Your task to perform on an android device: toggle priority inbox in the gmail app Image 0: 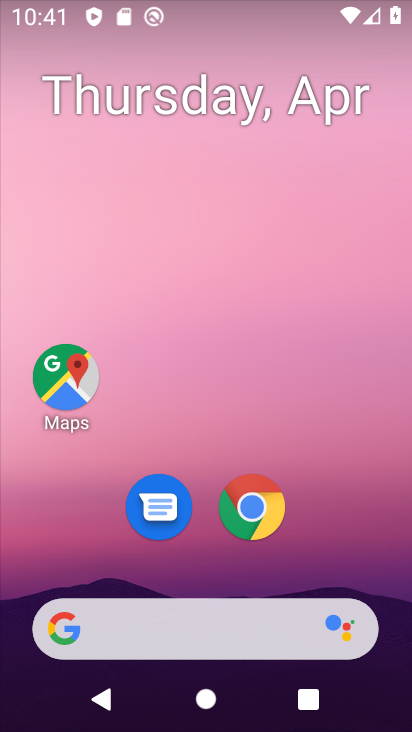
Step 0: drag from (138, 548) to (258, 13)
Your task to perform on an android device: toggle priority inbox in the gmail app Image 1: 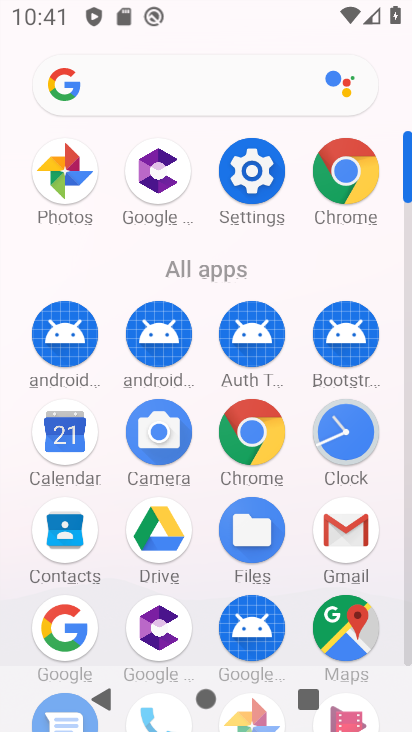
Step 1: click (355, 542)
Your task to perform on an android device: toggle priority inbox in the gmail app Image 2: 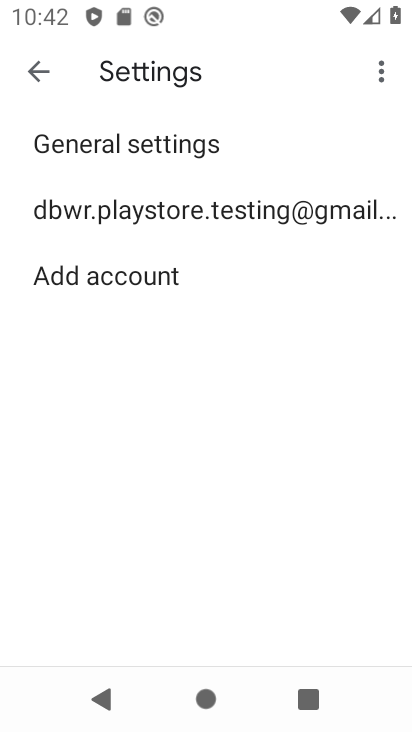
Step 2: click (194, 218)
Your task to perform on an android device: toggle priority inbox in the gmail app Image 3: 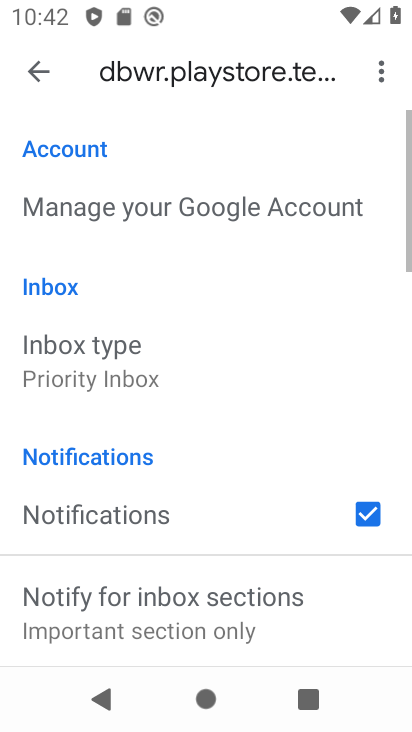
Step 3: click (175, 363)
Your task to perform on an android device: toggle priority inbox in the gmail app Image 4: 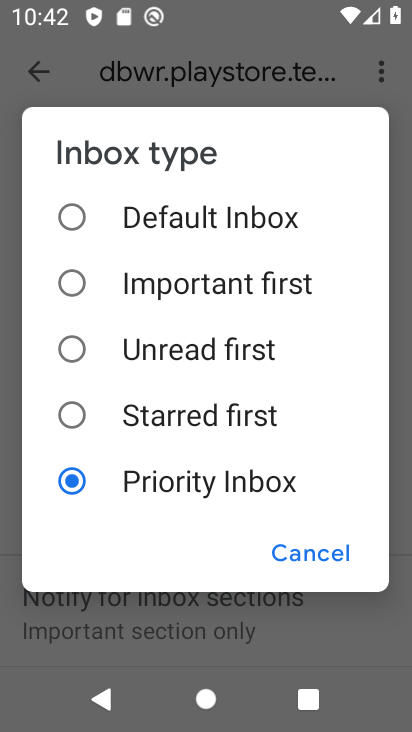
Step 4: click (180, 283)
Your task to perform on an android device: toggle priority inbox in the gmail app Image 5: 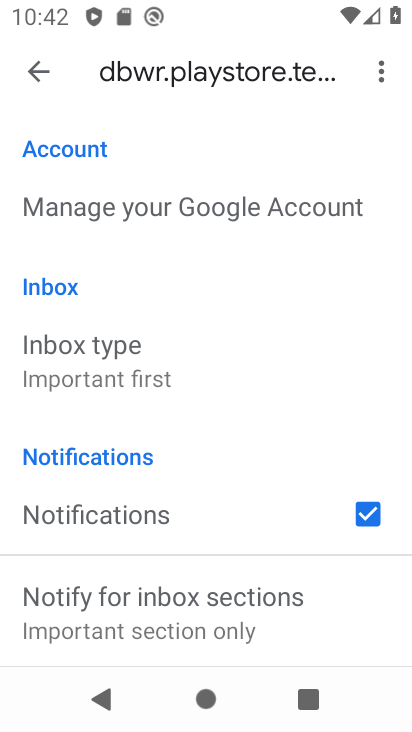
Step 5: task complete